Your task to perform on an android device: Open settings Image 0: 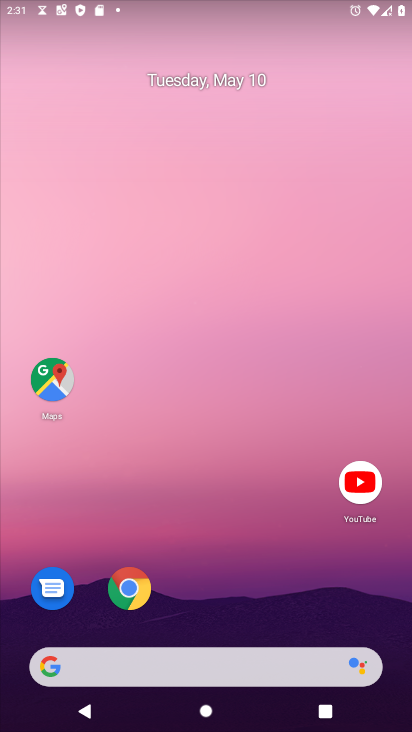
Step 0: drag from (268, 590) to (204, 206)
Your task to perform on an android device: Open settings Image 1: 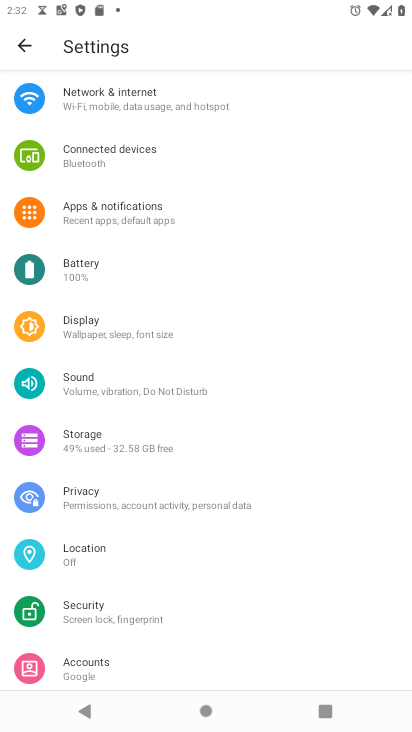
Step 1: task complete